Your task to perform on an android device: toggle sleep mode Image 0: 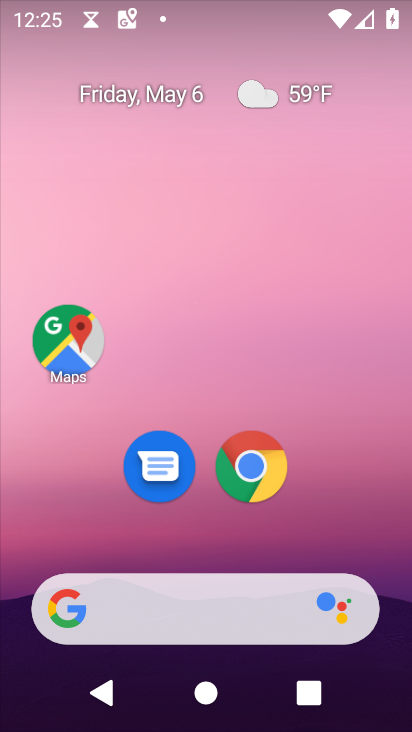
Step 0: drag from (362, 554) to (339, 72)
Your task to perform on an android device: toggle sleep mode Image 1: 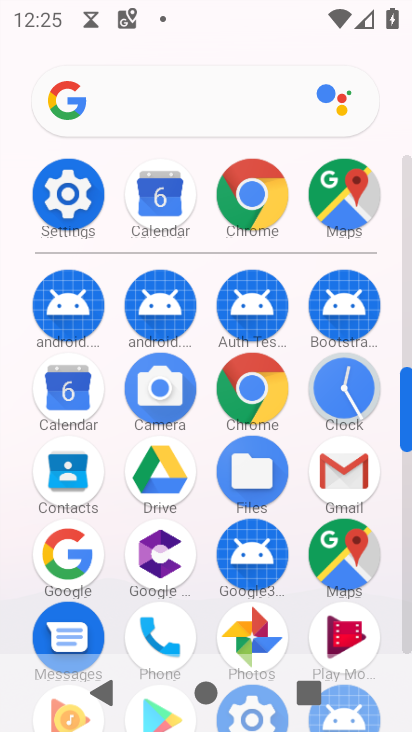
Step 1: click (63, 203)
Your task to perform on an android device: toggle sleep mode Image 2: 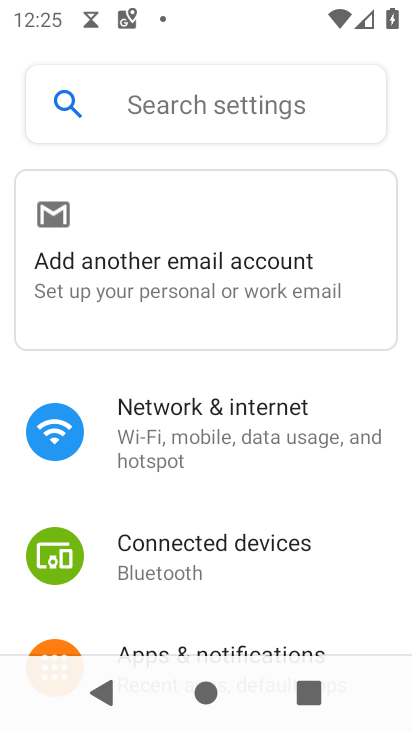
Step 2: drag from (255, 586) to (217, 233)
Your task to perform on an android device: toggle sleep mode Image 3: 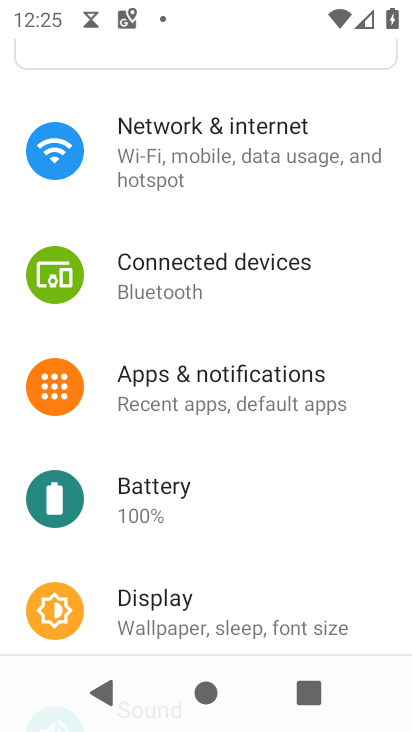
Step 3: click (286, 619)
Your task to perform on an android device: toggle sleep mode Image 4: 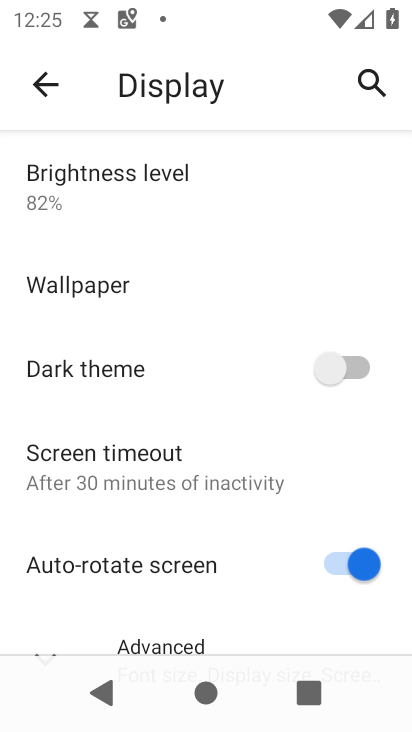
Step 4: drag from (273, 599) to (232, 204)
Your task to perform on an android device: toggle sleep mode Image 5: 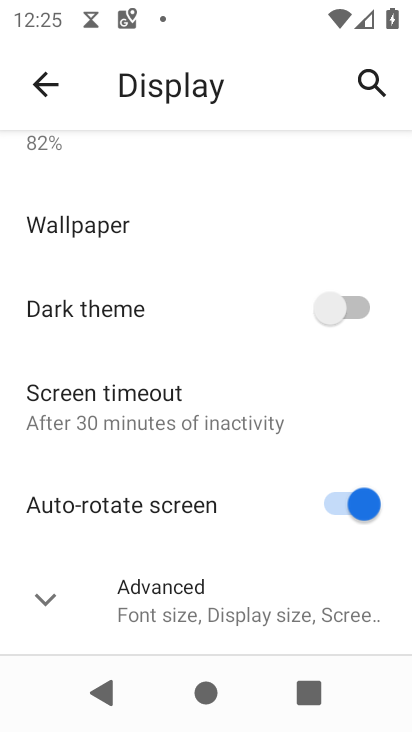
Step 5: click (282, 639)
Your task to perform on an android device: toggle sleep mode Image 6: 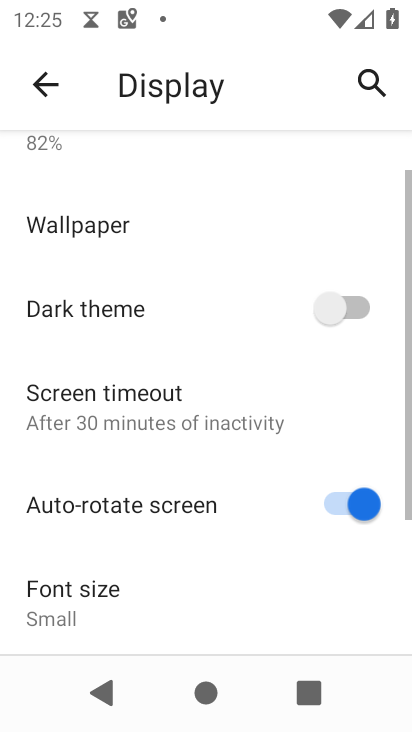
Step 6: click (293, 597)
Your task to perform on an android device: toggle sleep mode Image 7: 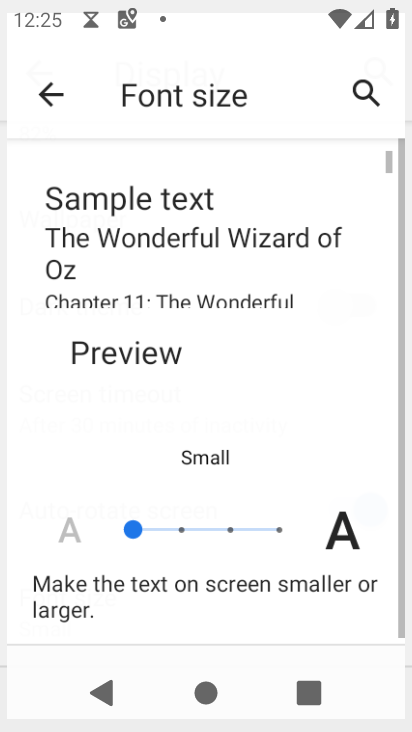
Step 7: drag from (293, 597) to (284, 190)
Your task to perform on an android device: toggle sleep mode Image 8: 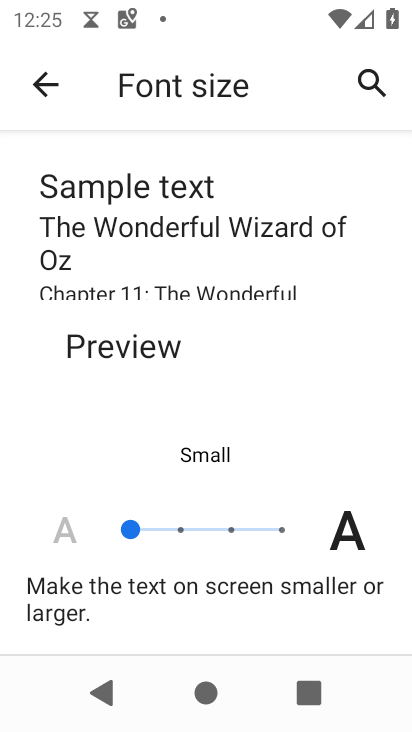
Step 8: click (66, 80)
Your task to perform on an android device: toggle sleep mode Image 9: 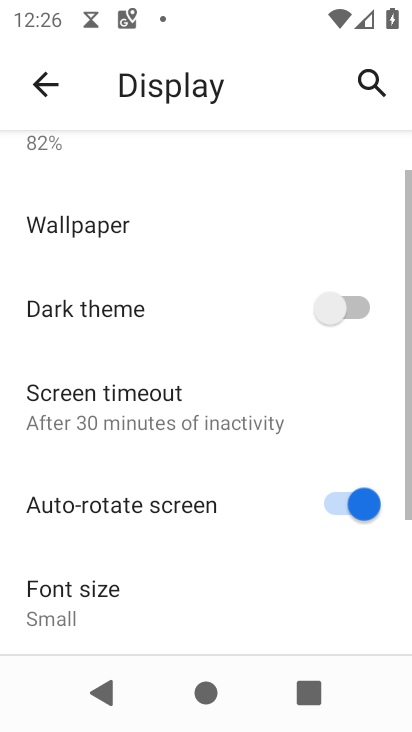
Step 9: task complete